Your task to perform on an android device: Open calendar and show me the first week of next month Image 0: 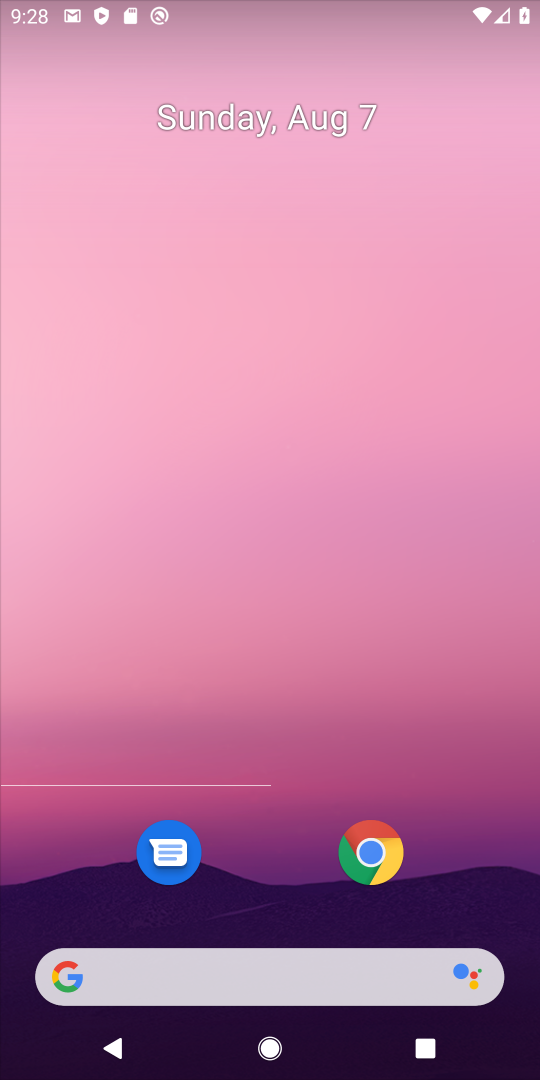
Step 0: press home button
Your task to perform on an android device: Open calendar and show me the first week of next month Image 1: 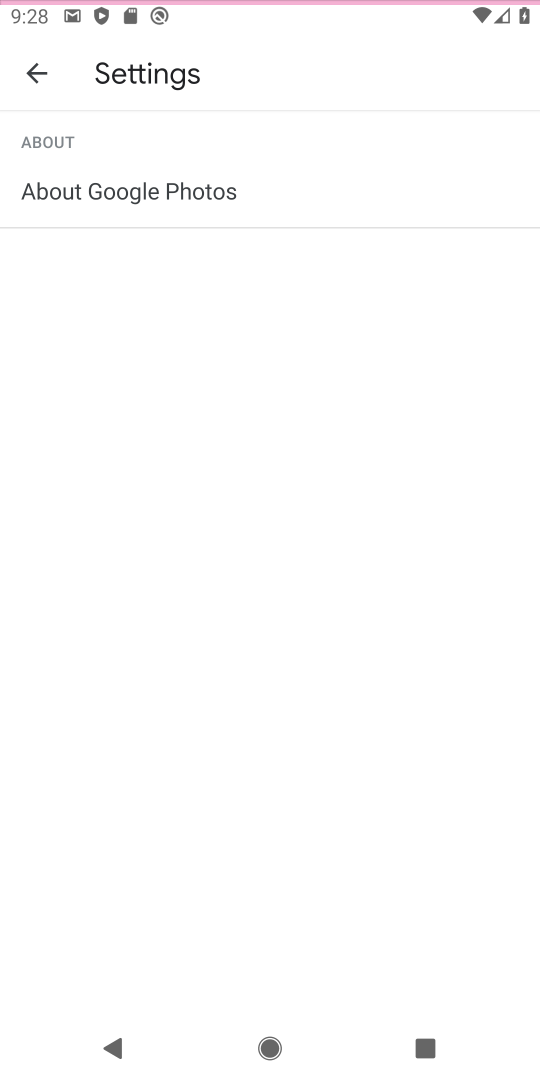
Step 1: drag from (327, 859) to (443, 60)
Your task to perform on an android device: Open calendar and show me the first week of next month Image 2: 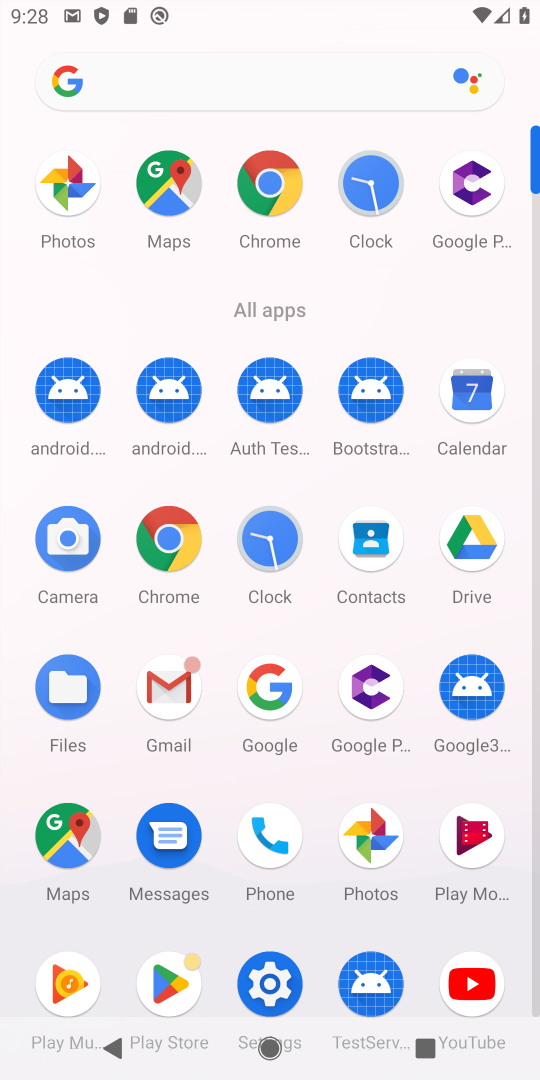
Step 2: click (487, 355)
Your task to perform on an android device: Open calendar and show me the first week of next month Image 3: 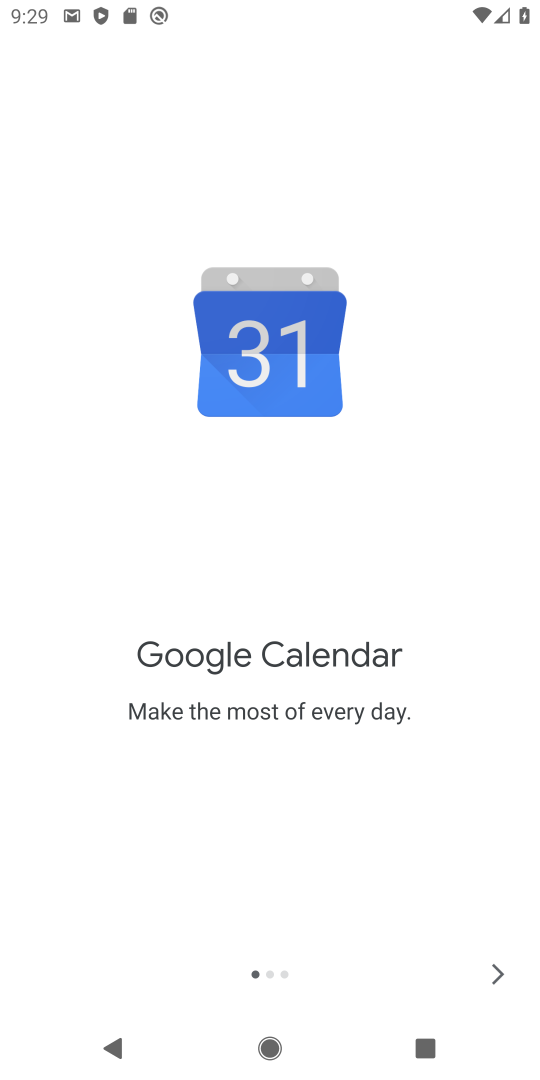
Step 3: click (478, 969)
Your task to perform on an android device: Open calendar and show me the first week of next month Image 4: 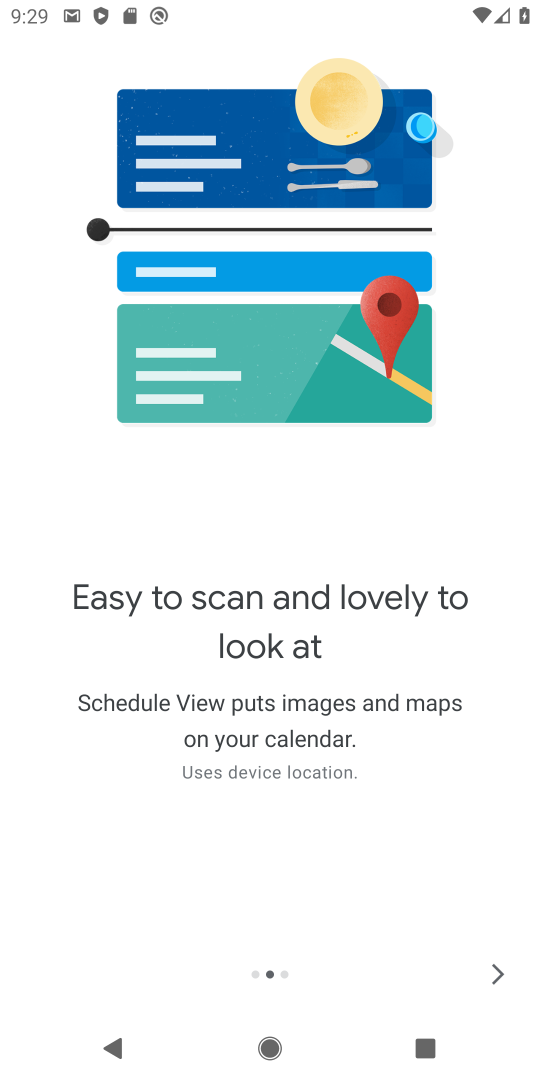
Step 4: click (478, 969)
Your task to perform on an android device: Open calendar and show me the first week of next month Image 5: 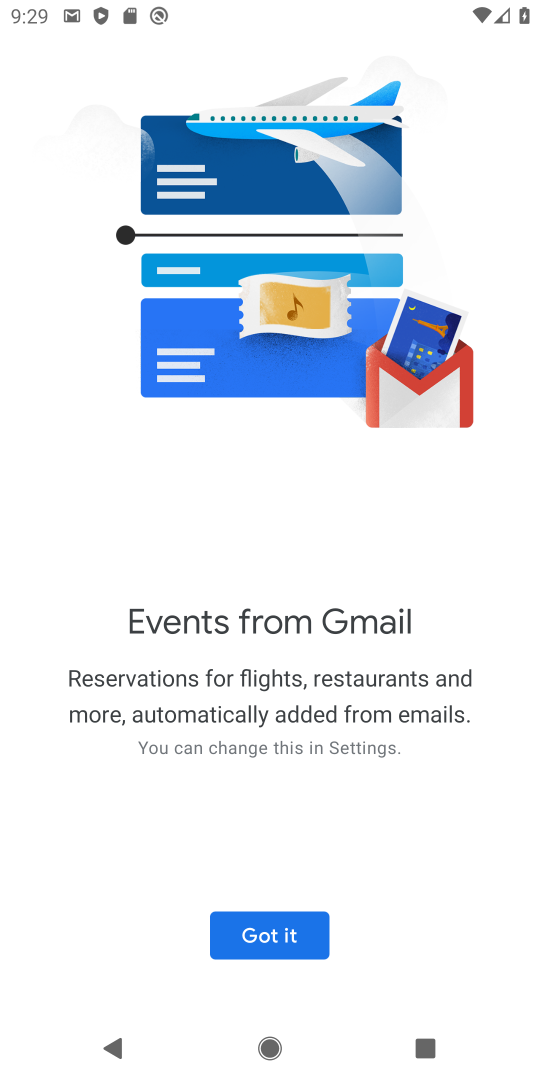
Step 5: click (241, 936)
Your task to perform on an android device: Open calendar and show me the first week of next month Image 6: 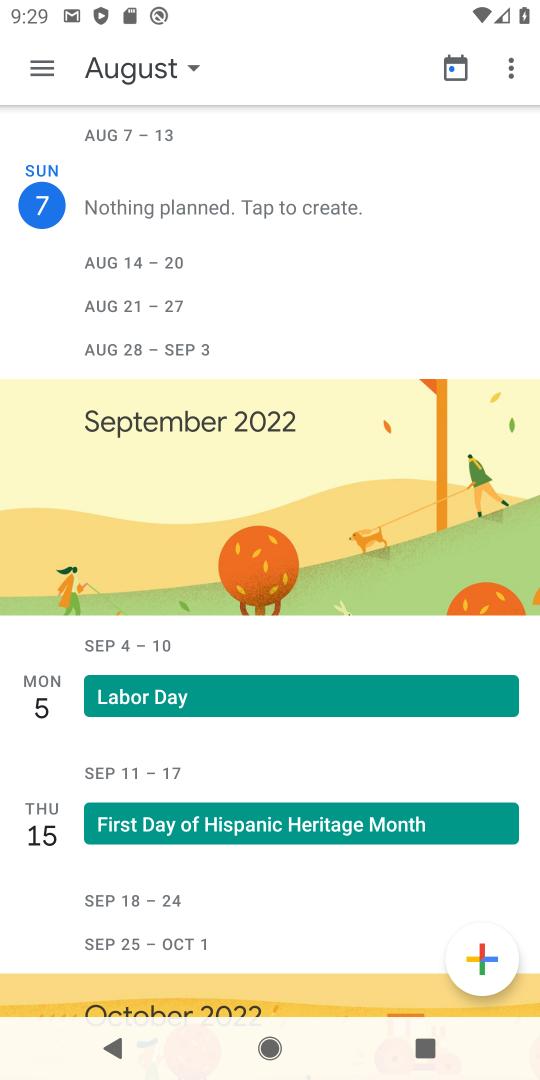
Step 6: click (145, 81)
Your task to perform on an android device: Open calendar and show me the first week of next month Image 7: 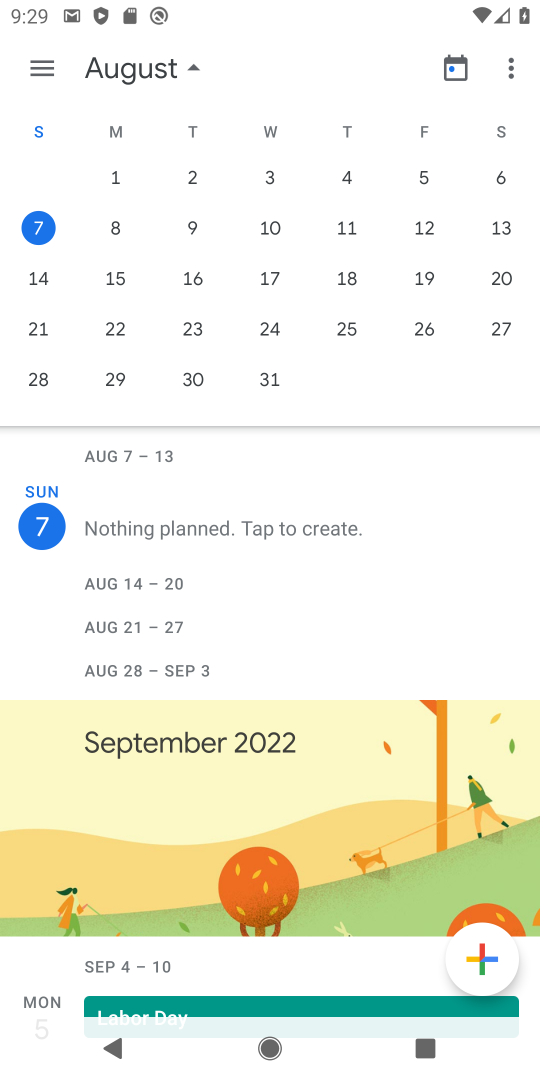
Step 7: task complete